Your task to perform on an android device: change text size in settings app Image 0: 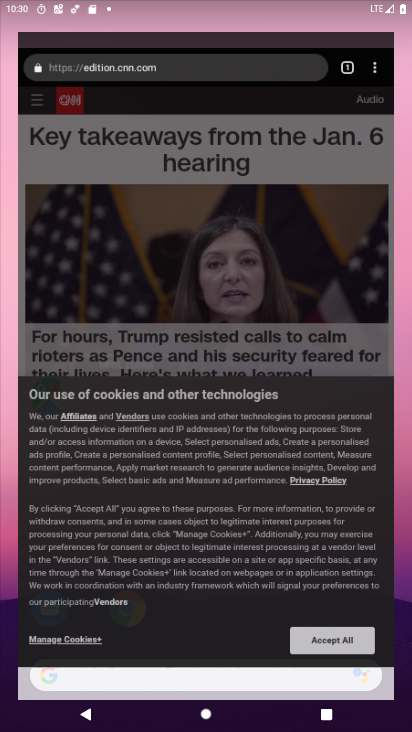
Step 0: drag from (211, 595) to (270, 243)
Your task to perform on an android device: change text size in settings app Image 1: 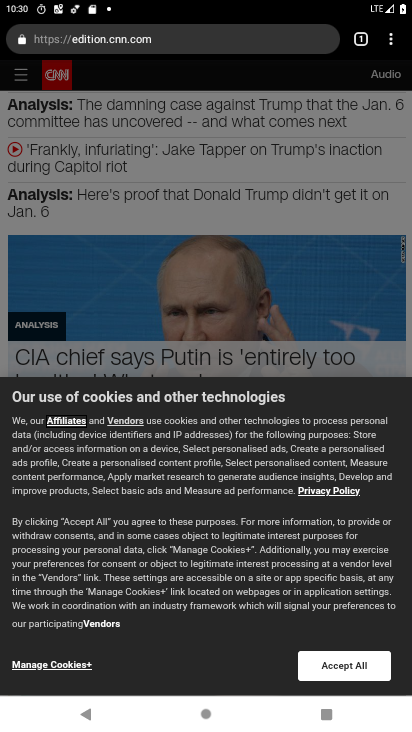
Step 1: press home button
Your task to perform on an android device: change text size in settings app Image 2: 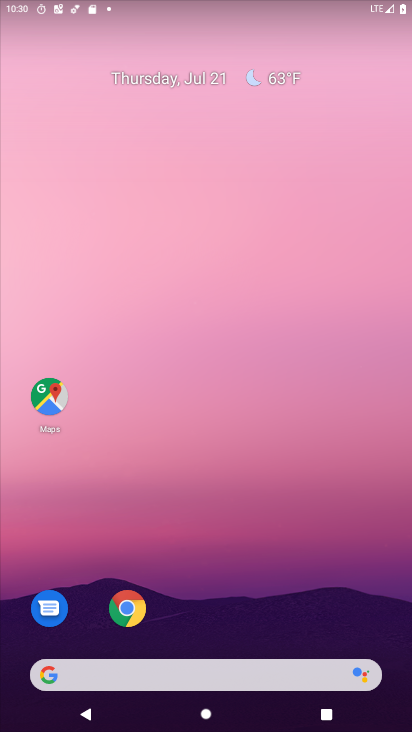
Step 2: drag from (220, 663) to (217, 181)
Your task to perform on an android device: change text size in settings app Image 3: 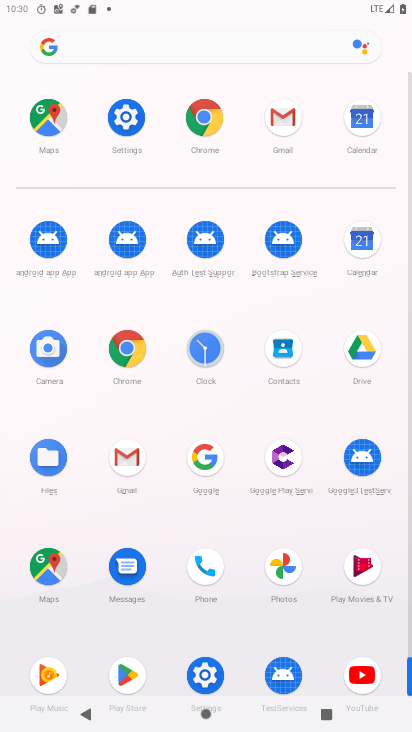
Step 3: click (134, 138)
Your task to perform on an android device: change text size in settings app Image 4: 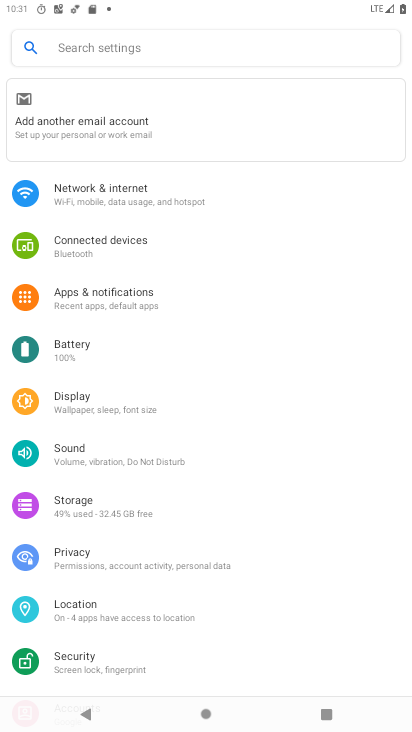
Step 4: click (91, 405)
Your task to perform on an android device: change text size in settings app Image 5: 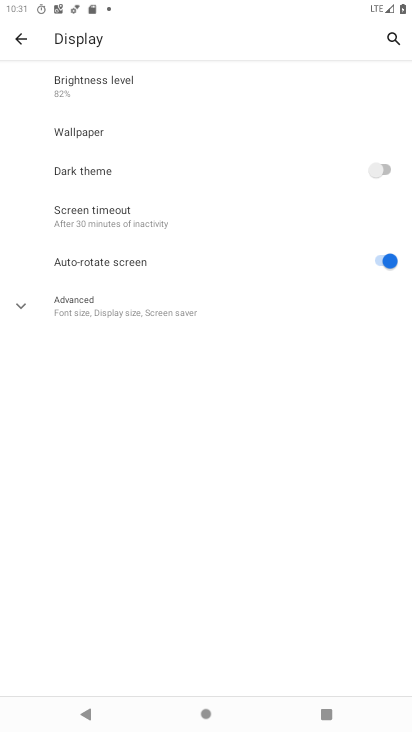
Step 5: click (93, 292)
Your task to perform on an android device: change text size in settings app Image 6: 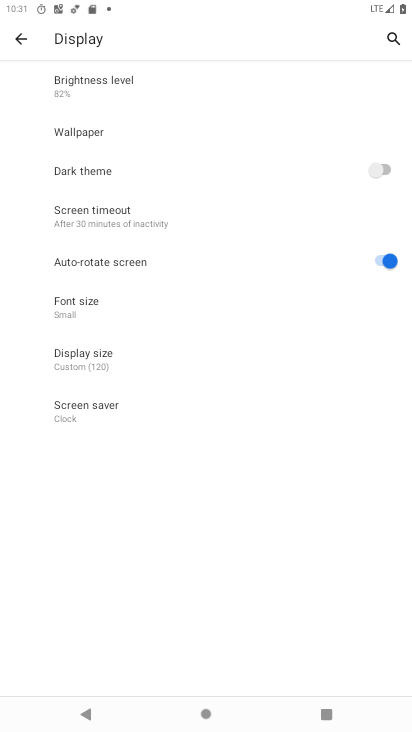
Step 6: click (103, 311)
Your task to perform on an android device: change text size in settings app Image 7: 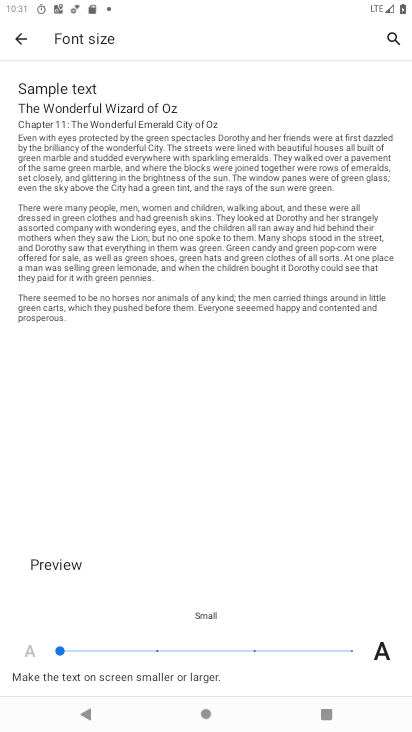
Step 7: click (152, 647)
Your task to perform on an android device: change text size in settings app Image 8: 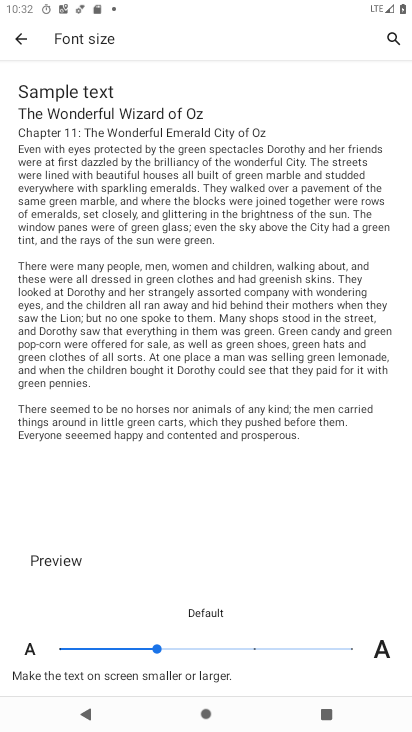
Step 8: task complete